Your task to perform on an android device: all mails in gmail Image 0: 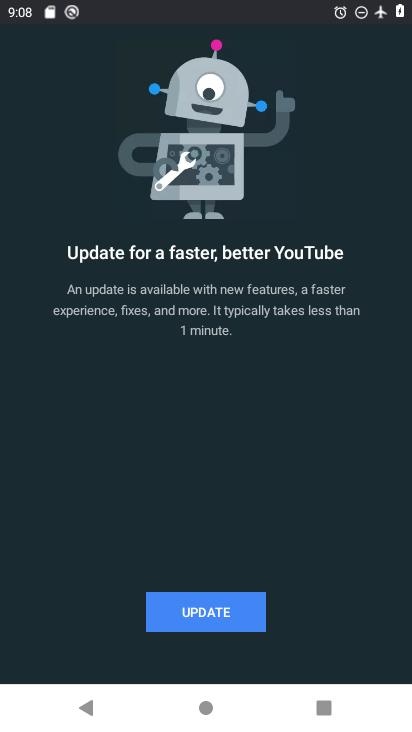
Step 0: press home button
Your task to perform on an android device: all mails in gmail Image 1: 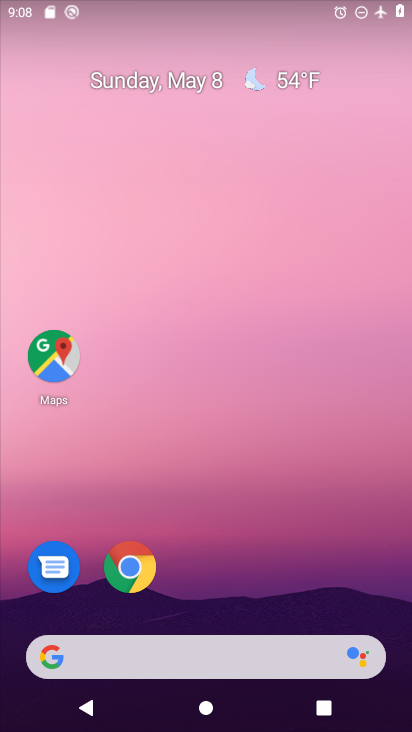
Step 1: click (136, 583)
Your task to perform on an android device: all mails in gmail Image 2: 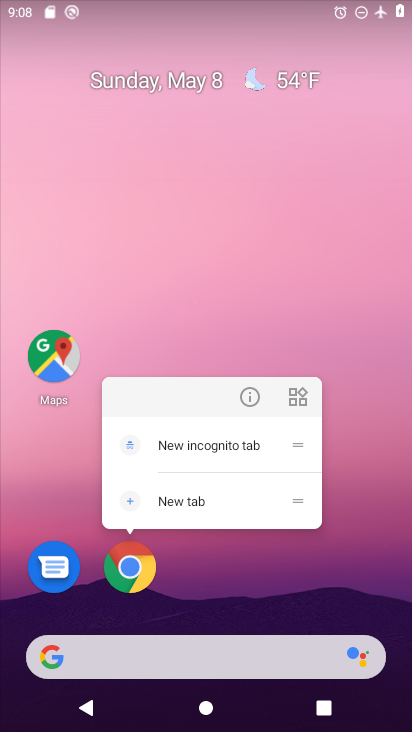
Step 2: click (133, 574)
Your task to perform on an android device: all mails in gmail Image 3: 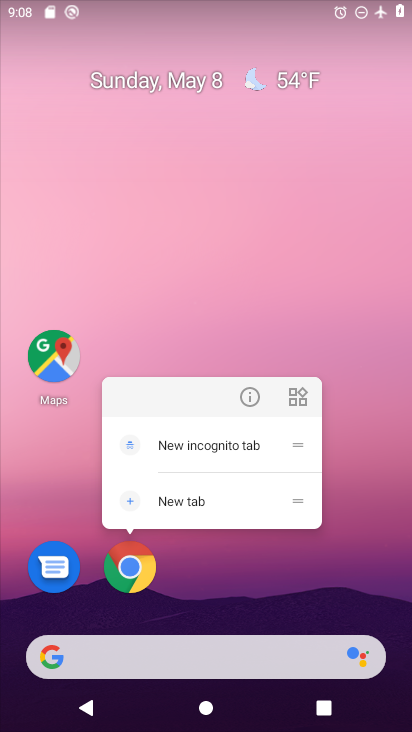
Step 3: click (132, 571)
Your task to perform on an android device: all mails in gmail Image 4: 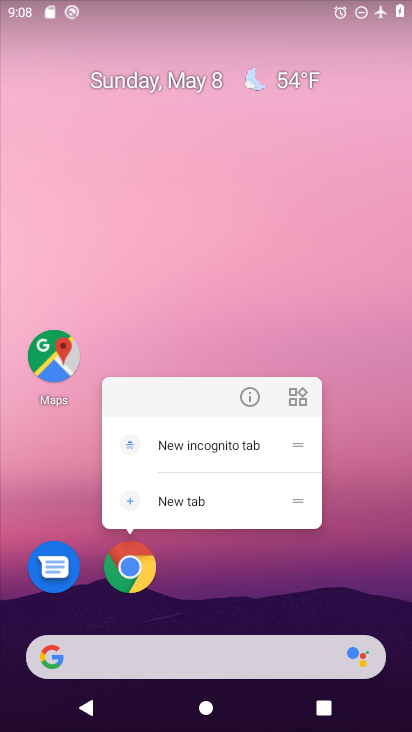
Step 4: click (291, 597)
Your task to perform on an android device: all mails in gmail Image 5: 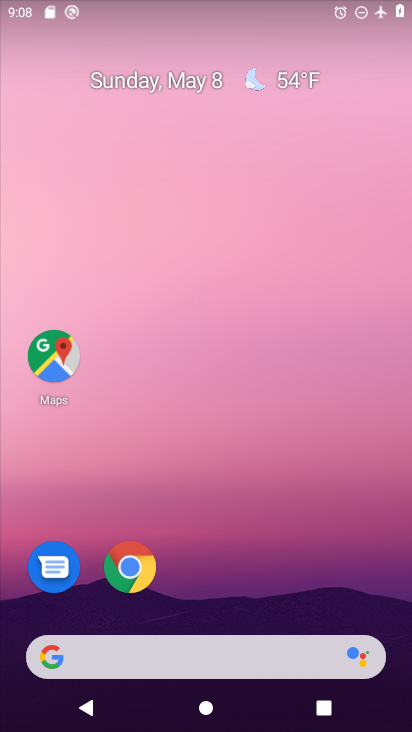
Step 5: drag from (330, 616) to (291, 42)
Your task to perform on an android device: all mails in gmail Image 6: 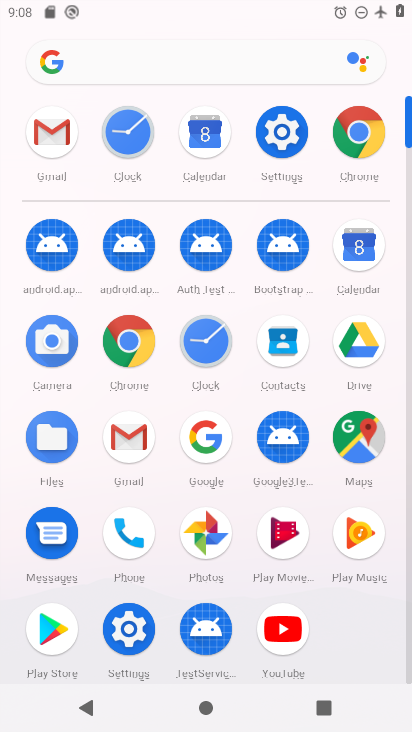
Step 6: click (139, 335)
Your task to perform on an android device: all mails in gmail Image 7: 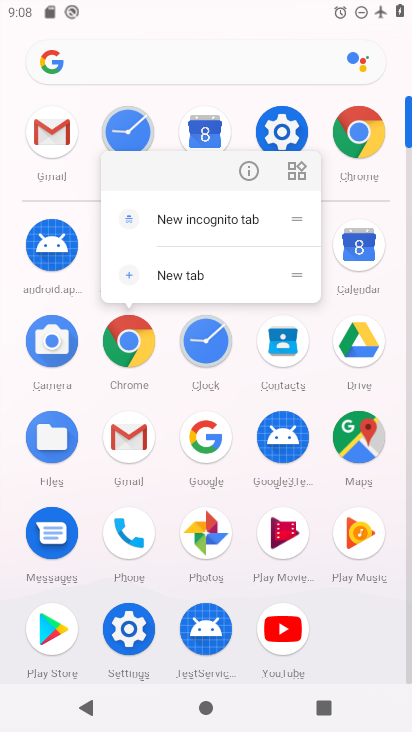
Step 7: click (54, 133)
Your task to perform on an android device: all mails in gmail Image 8: 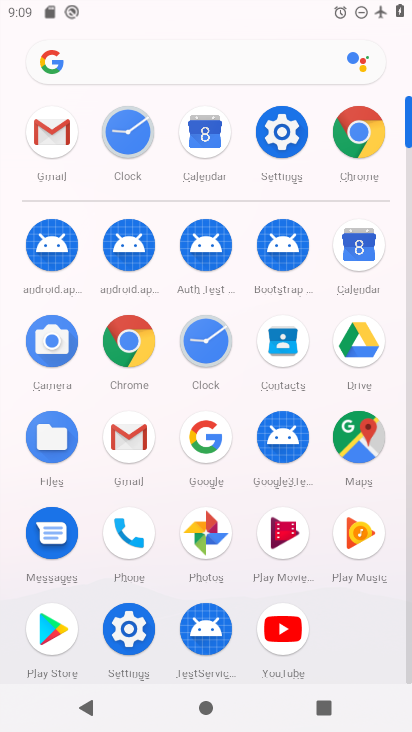
Step 8: click (54, 133)
Your task to perform on an android device: all mails in gmail Image 9: 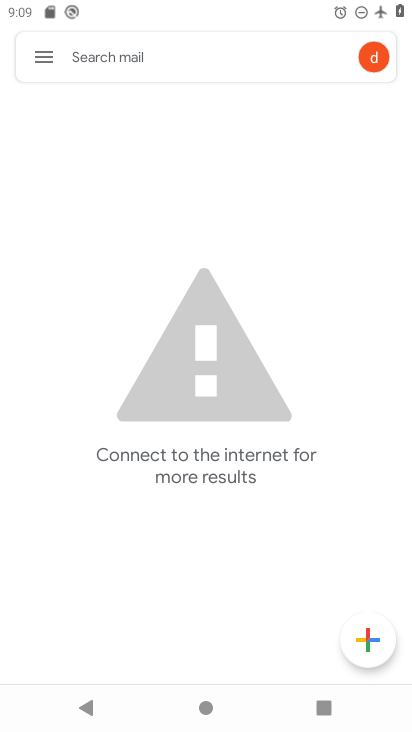
Step 9: click (41, 49)
Your task to perform on an android device: all mails in gmail Image 10: 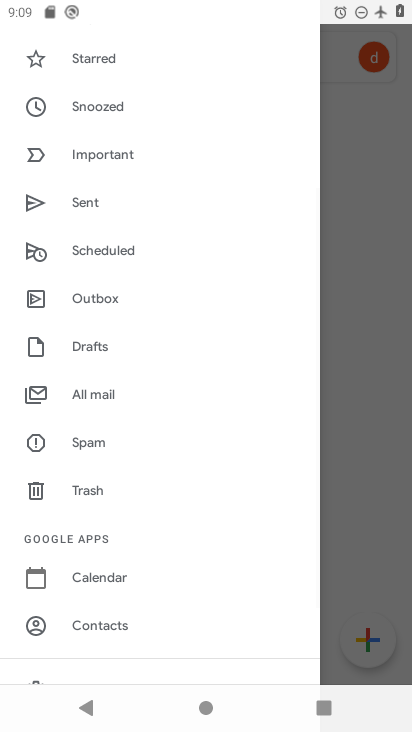
Step 10: click (102, 409)
Your task to perform on an android device: all mails in gmail Image 11: 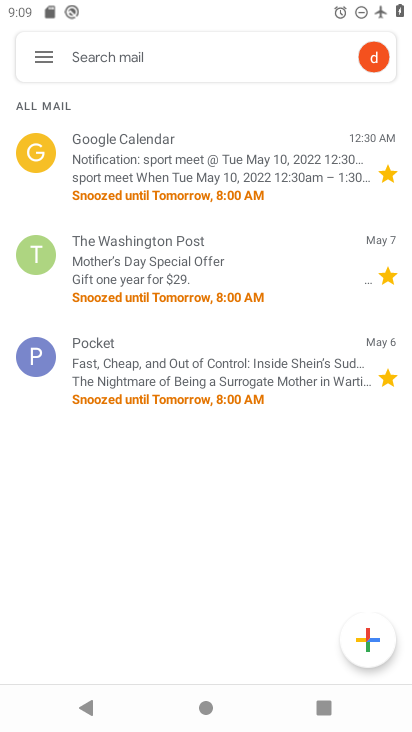
Step 11: task complete